Your task to perform on an android device: Go to internet settings Image 0: 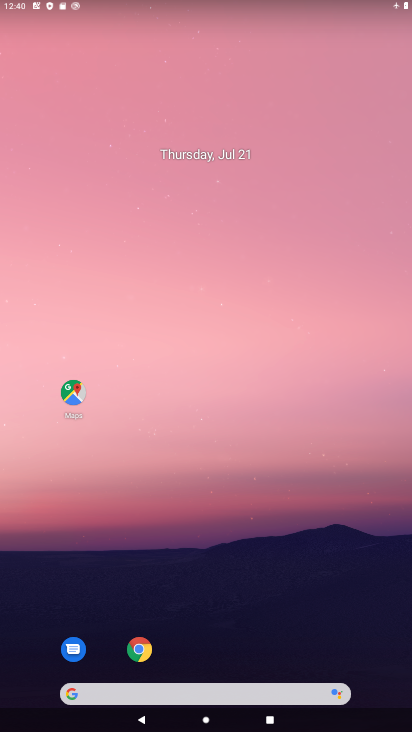
Step 0: drag from (238, 556) to (239, 144)
Your task to perform on an android device: Go to internet settings Image 1: 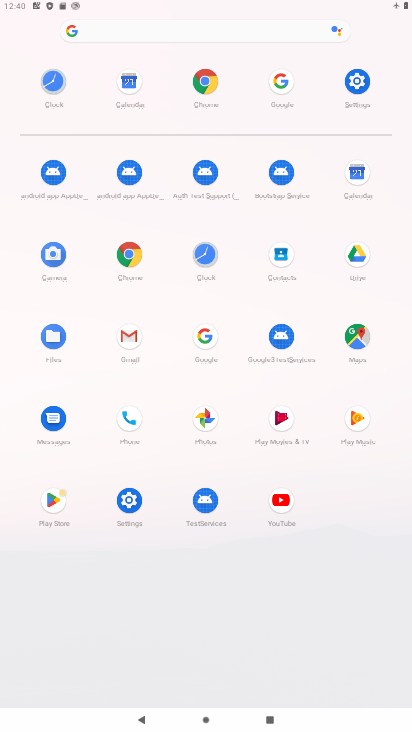
Step 1: click (362, 74)
Your task to perform on an android device: Go to internet settings Image 2: 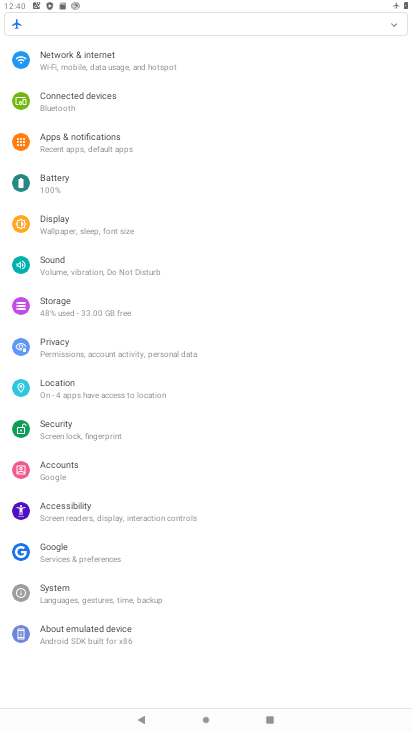
Step 2: click (59, 58)
Your task to perform on an android device: Go to internet settings Image 3: 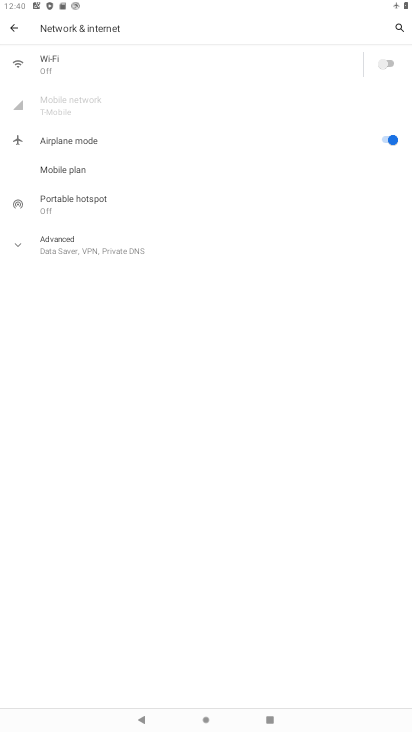
Step 3: task complete